Your task to perform on an android device: search for starred emails in the gmail app Image 0: 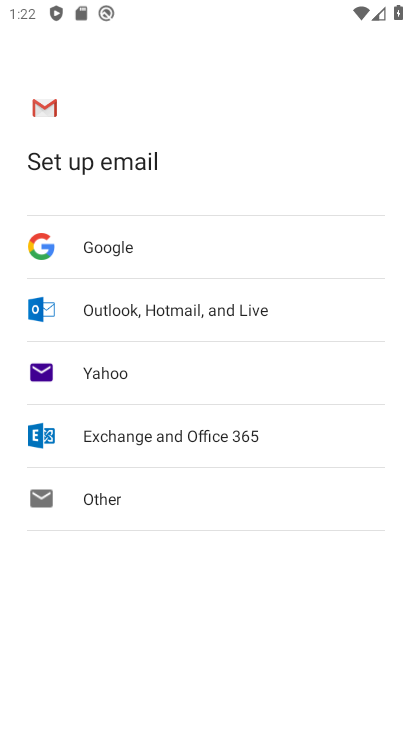
Step 0: press home button
Your task to perform on an android device: search for starred emails in the gmail app Image 1: 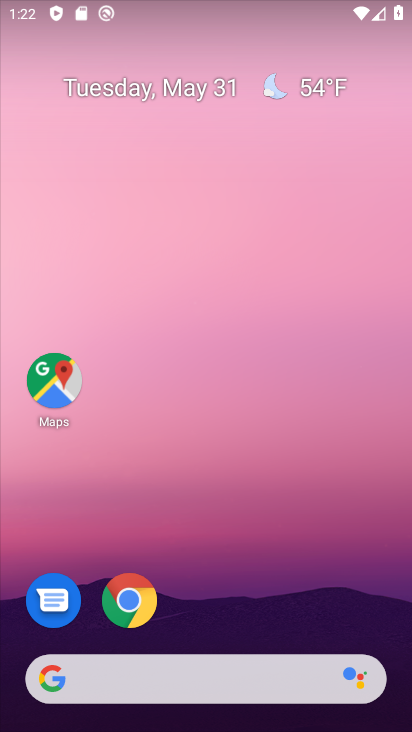
Step 1: drag from (279, 571) to (199, 93)
Your task to perform on an android device: search for starred emails in the gmail app Image 2: 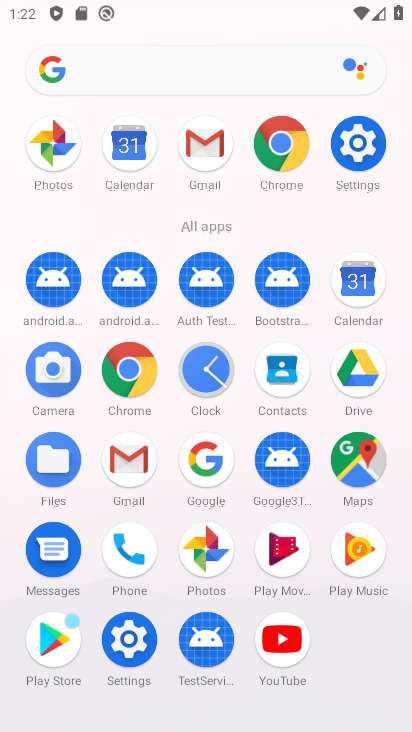
Step 2: click (121, 457)
Your task to perform on an android device: search for starred emails in the gmail app Image 3: 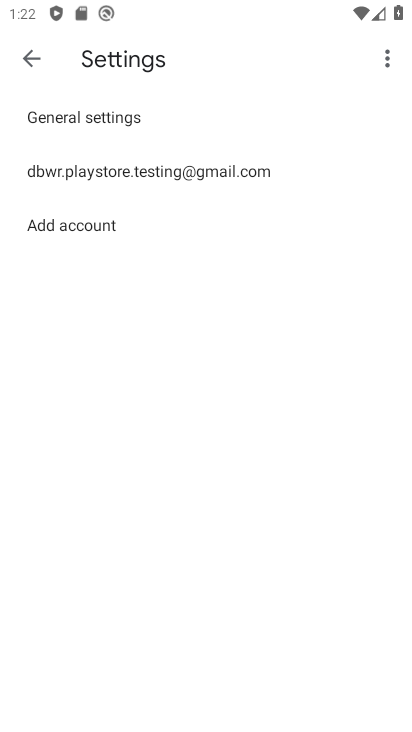
Step 3: click (165, 163)
Your task to perform on an android device: search for starred emails in the gmail app Image 4: 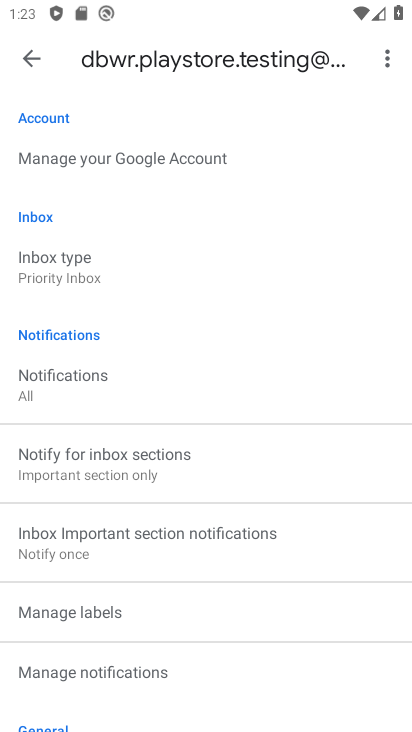
Step 4: click (34, 45)
Your task to perform on an android device: search for starred emails in the gmail app Image 5: 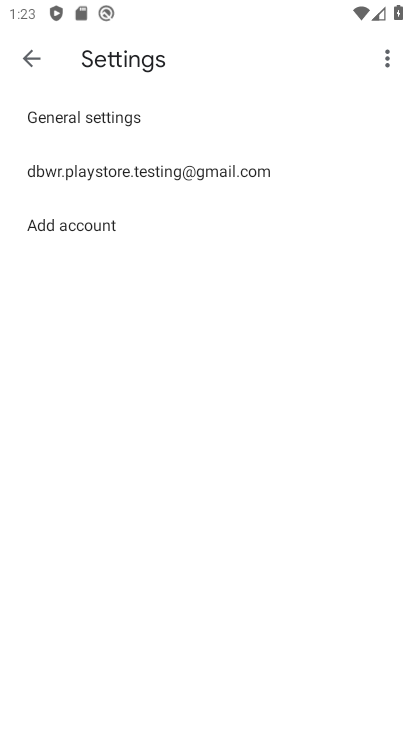
Step 5: click (33, 64)
Your task to perform on an android device: search for starred emails in the gmail app Image 6: 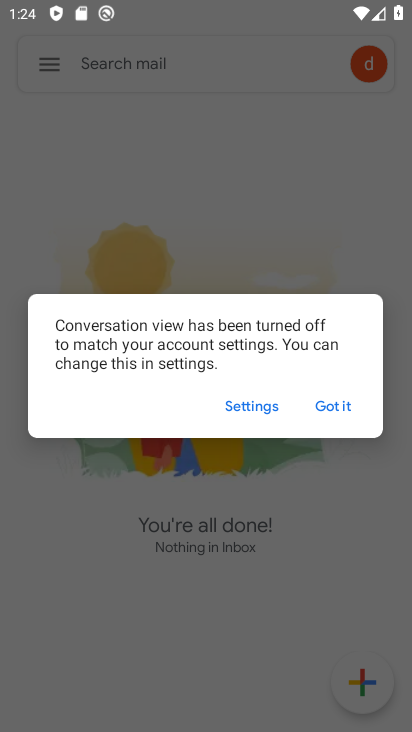
Step 6: click (333, 405)
Your task to perform on an android device: search for starred emails in the gmail app Image 7: 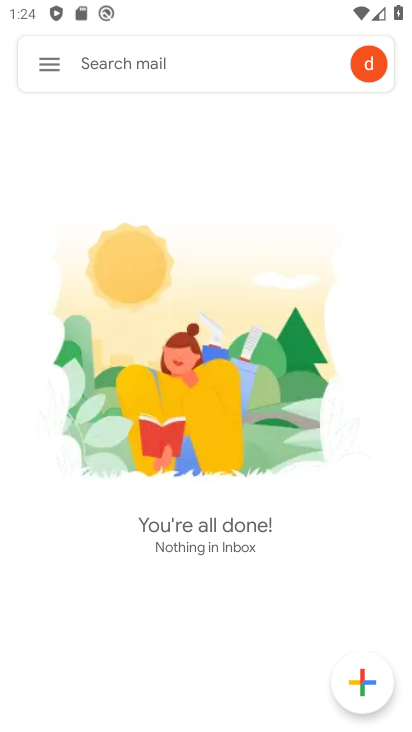
Step 7: click (137, 68)
Your task to perform on an android device: search for starred emails in the gmail app Image 8: 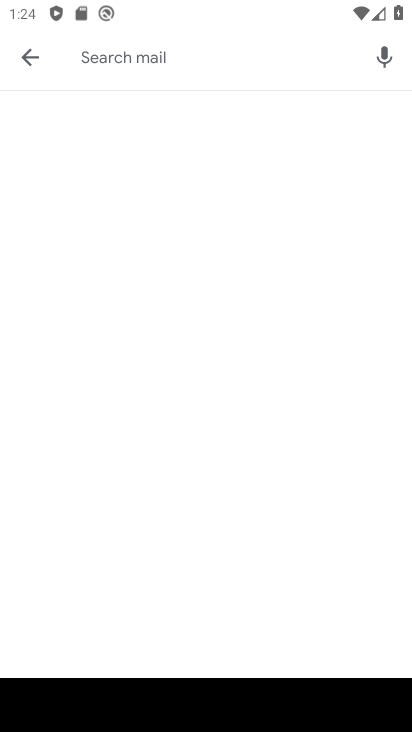
Step 8: click (175, 63)
Your task to perform on an android device: search for starred emails in the gmail app Image 9: 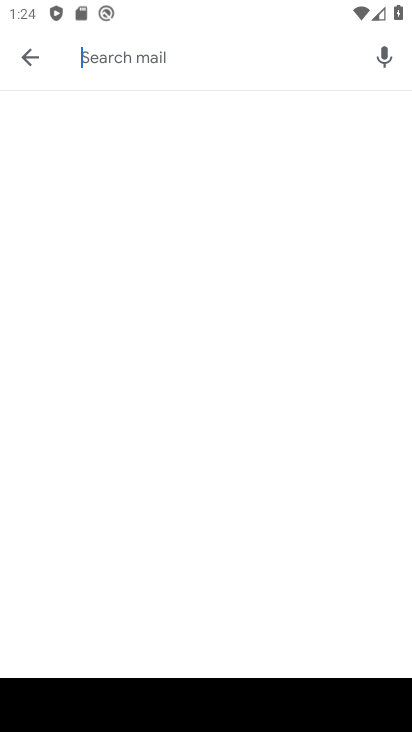
Step 9: type "starred"
Your task to perform on an android device: search for starred emails in the gmail app Image 10: 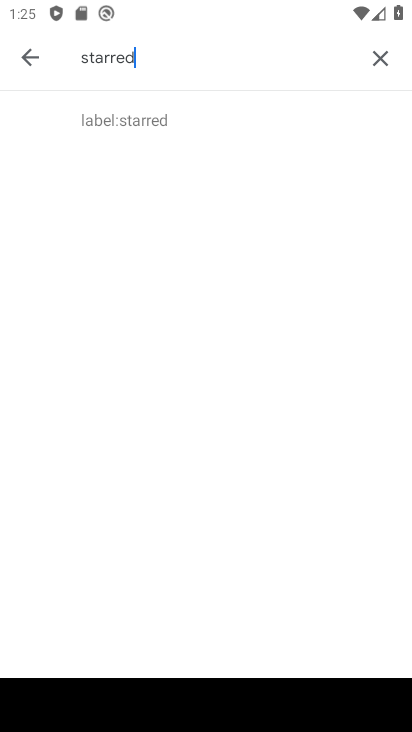
Step 10: click (154, 118)
Your task to perform on an android device: search for starred emails in the gmail app Image 11: 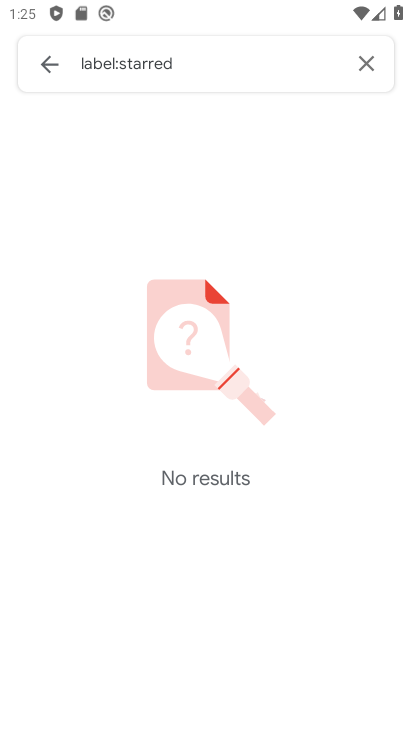
Step 11: task complete